Your task to perform on an android device: Clear the shopping cart on ebay. Image 0: 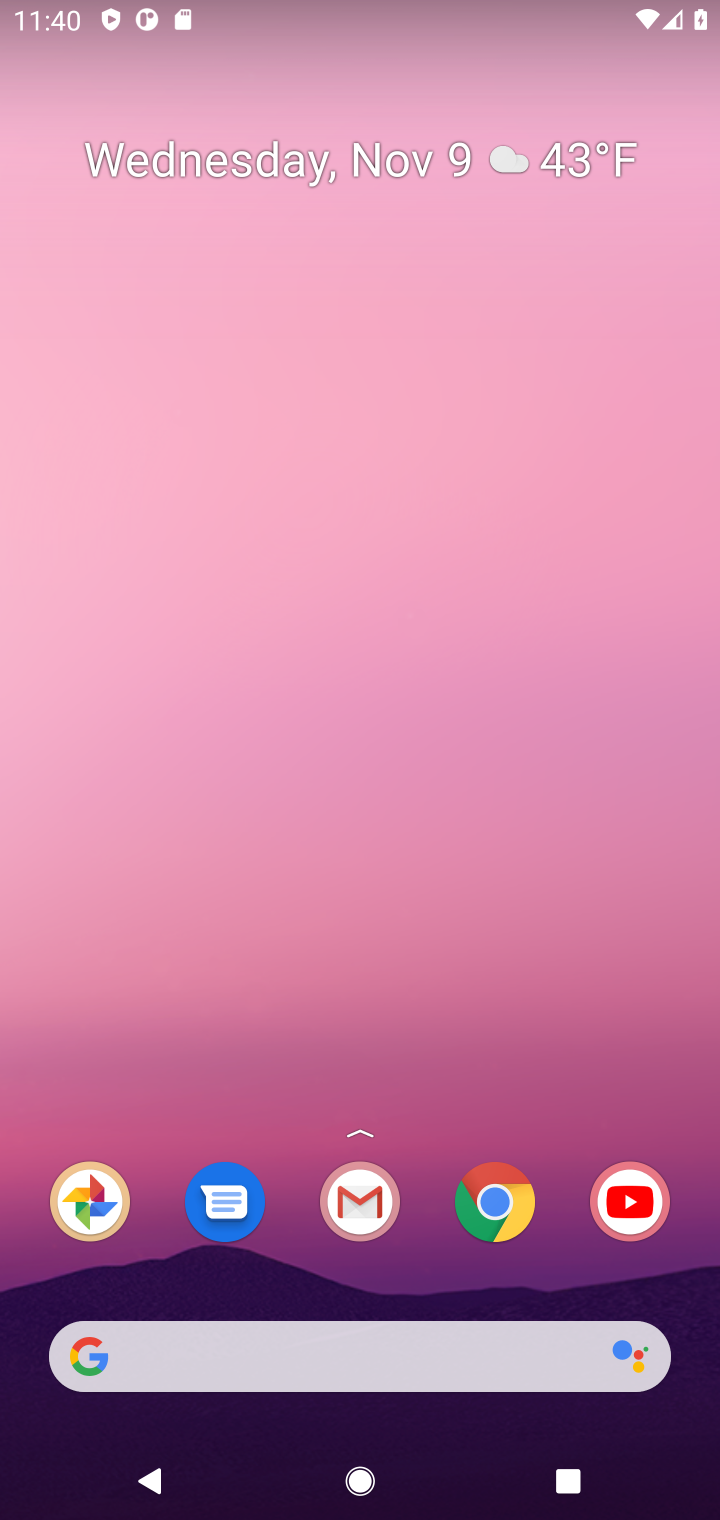
Step 0: click (489, 1196)
Your task to perform on an android device: Clear the shopping cart on ebay. Image 1: 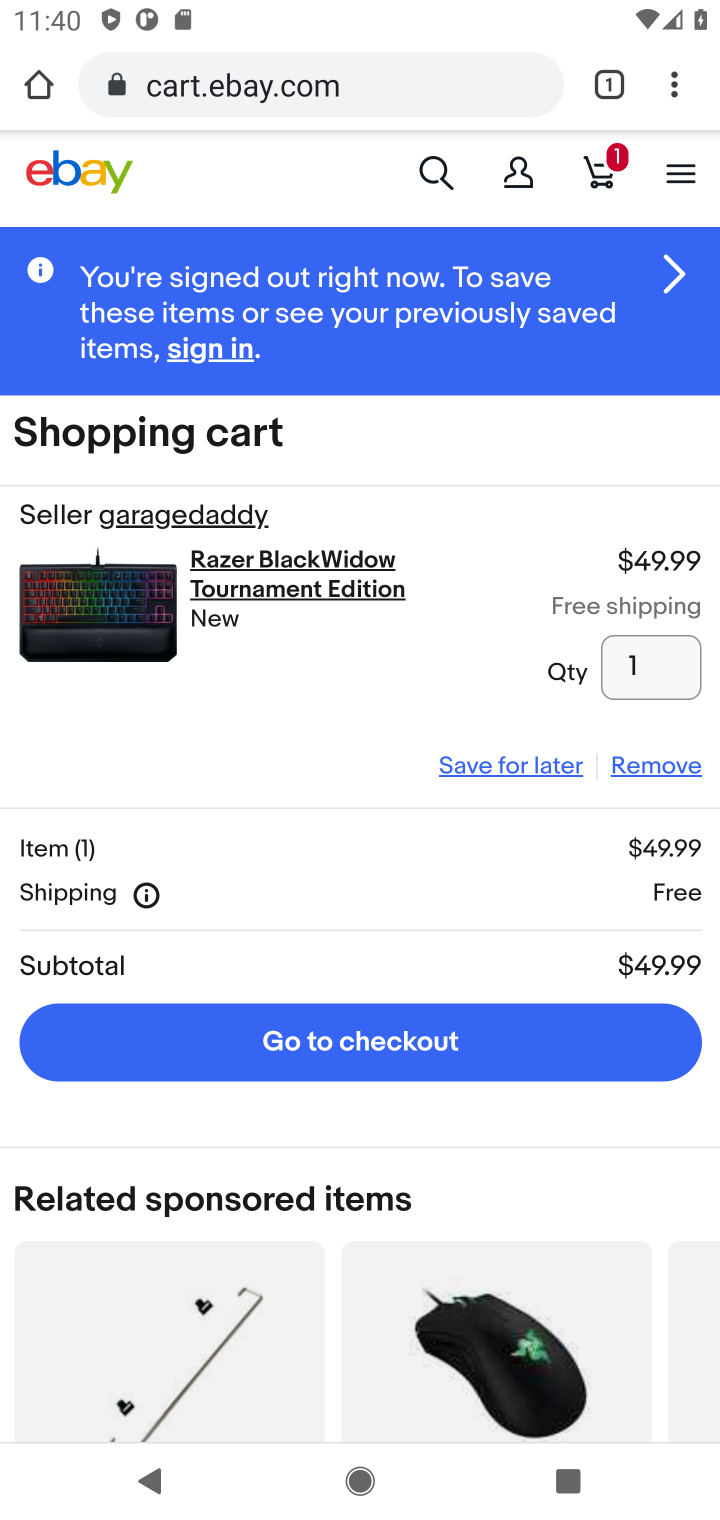
Step 1: click (607, 173)
Your task to perform on an android device: Clear the shopping cart on ebay. Image 2: 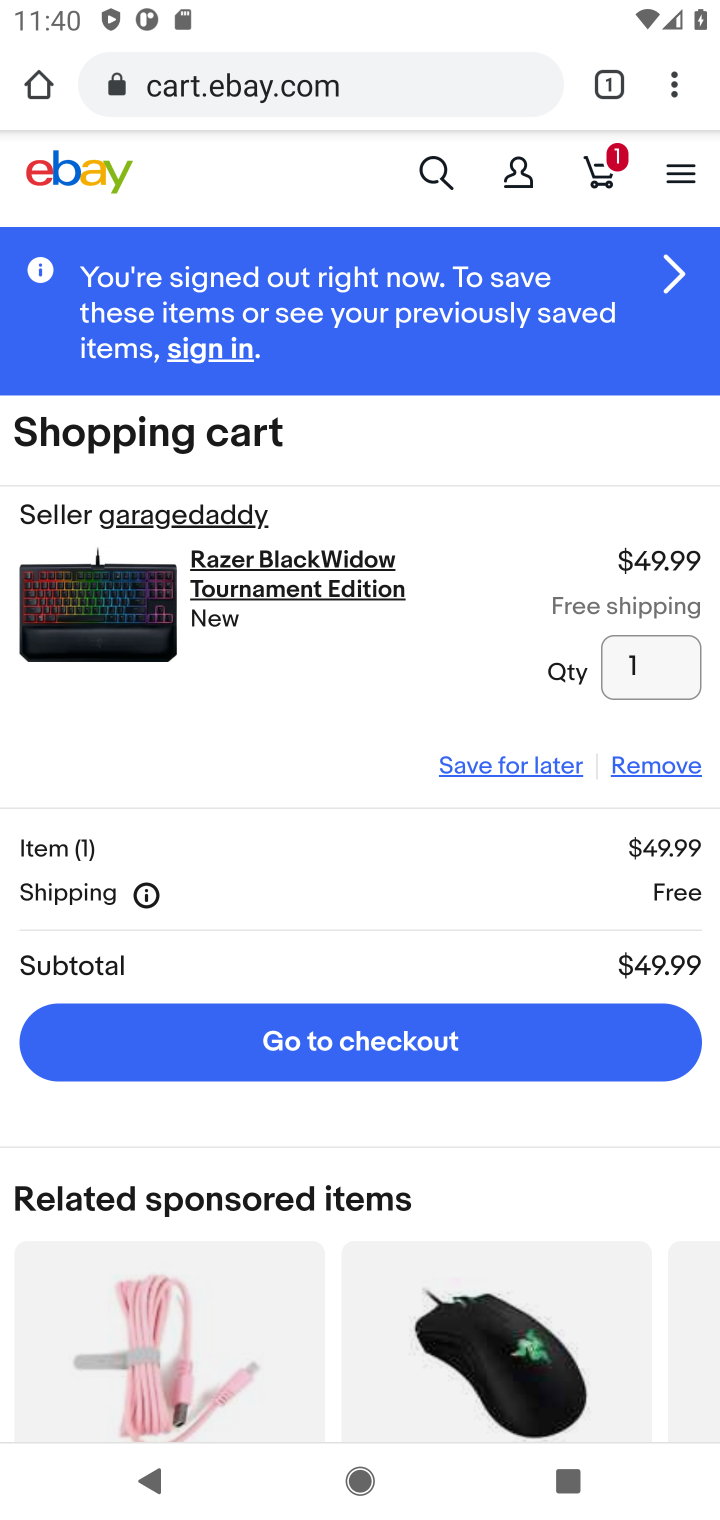
Step 2: click (672, 767)
Your task to perform on an android device: Clear the shopping cart on ebay. Image 3: 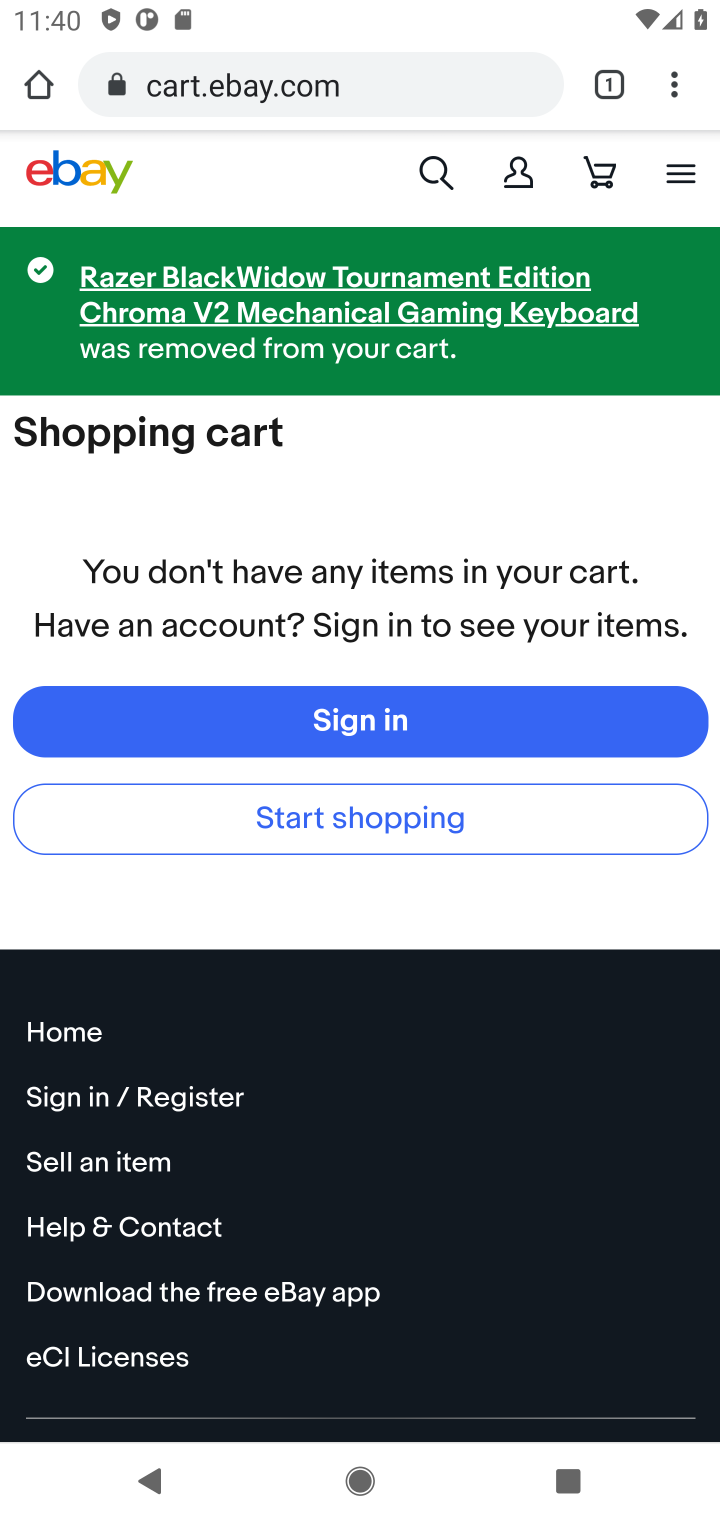
Step 3: task complete